Your task to perform on an android device: Go to sound settings Image 0: 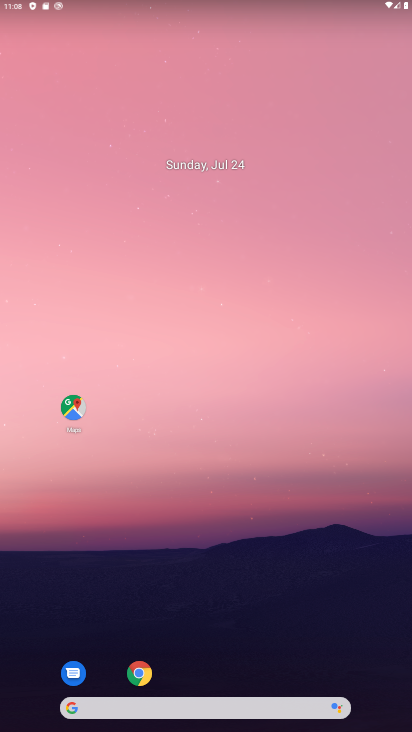
Step 0: press home button
Your task to perform on an android device: Go to sound settings Image 1: 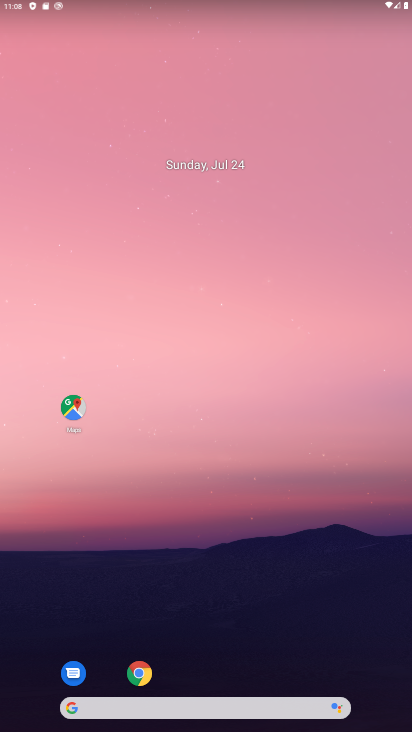
Step 1: drag from (354, 516) to (296, 37)
Your task to perform on an android device: Go to sound settings Image 2: 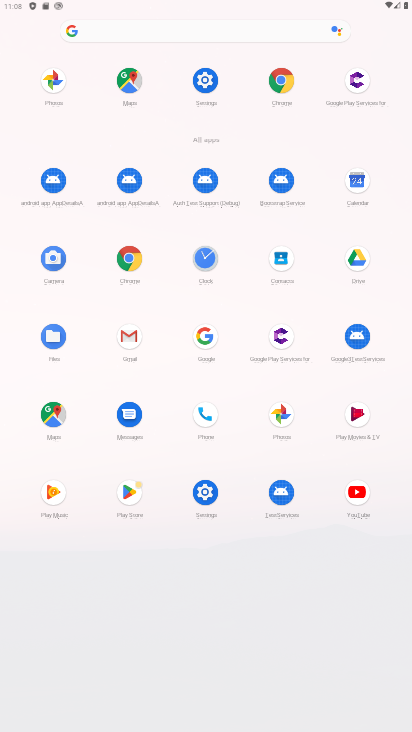
Step 2: click (207, 81)
Your task to perform on an android device: Go to sound settings Image 3: 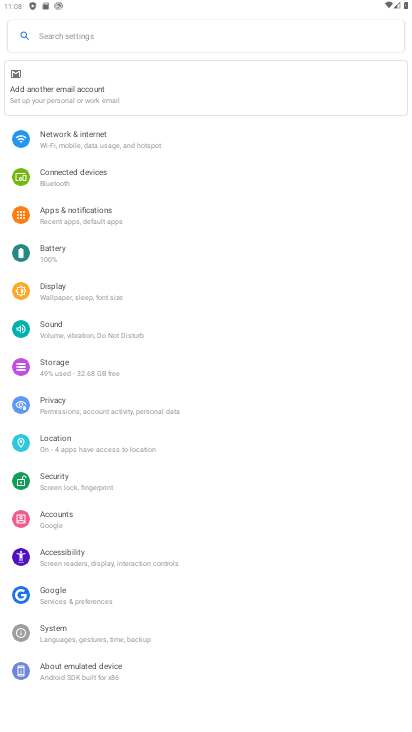
Step 3: click (81, 328)
Your task to perform on an android device: Go to sound settings Image 4: 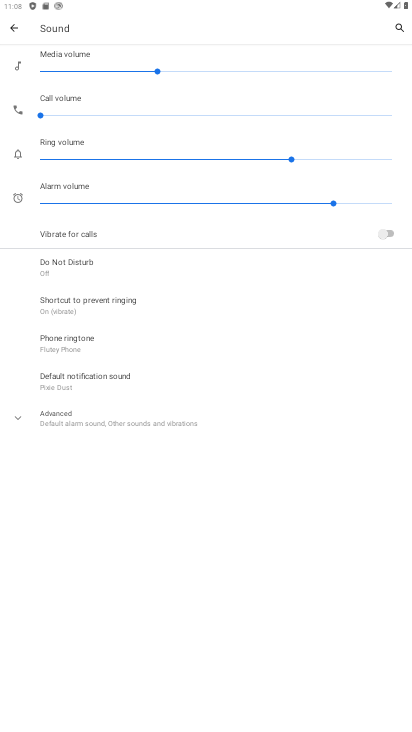
Step 4: task complete